Your task to perform on an android device: change text size in settings app Image 0: 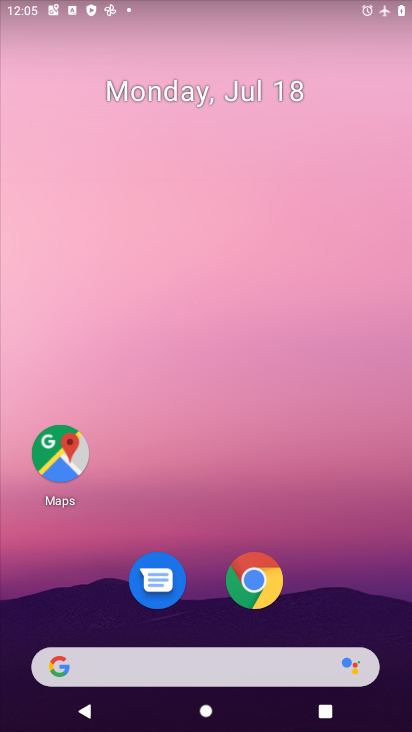
Step 0: drag from (200, 661) to (253, 231)
Your task to perform on an android device: change text size in settings app Image 1: 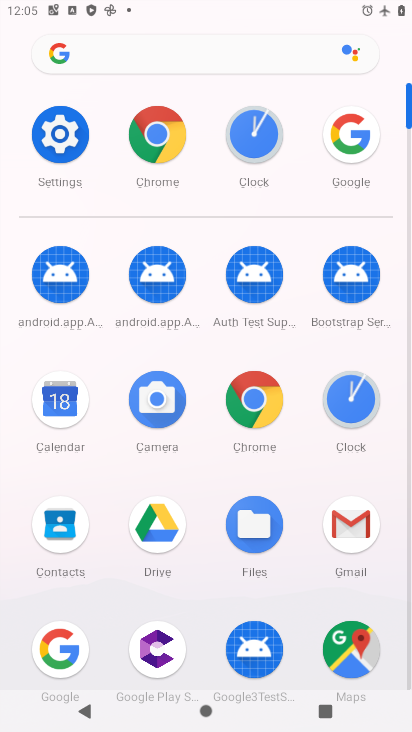
Step 1: click (56, 162)
Your task to perform on an android device: change text size in settings app Image 2: 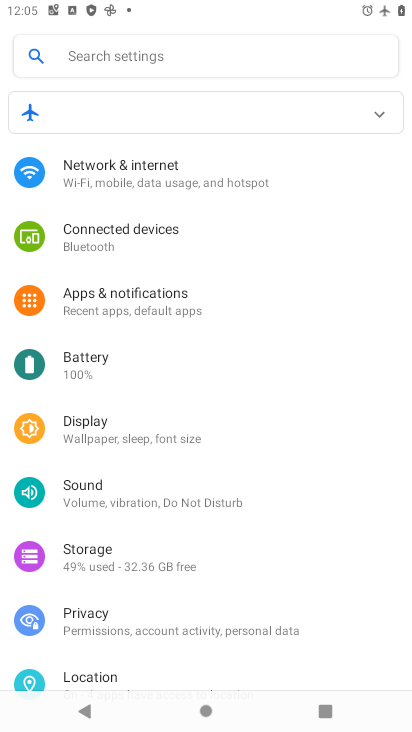
Step 2: click (98, 440)
Your task to perform on an android device: change text size in settings app Image 3: 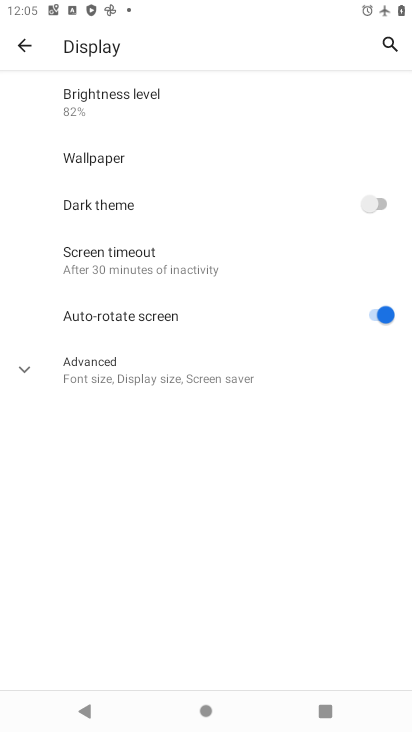
Step 3: click (136, 383)
Your task to perform on an android device: change text size in settings app Image 4: 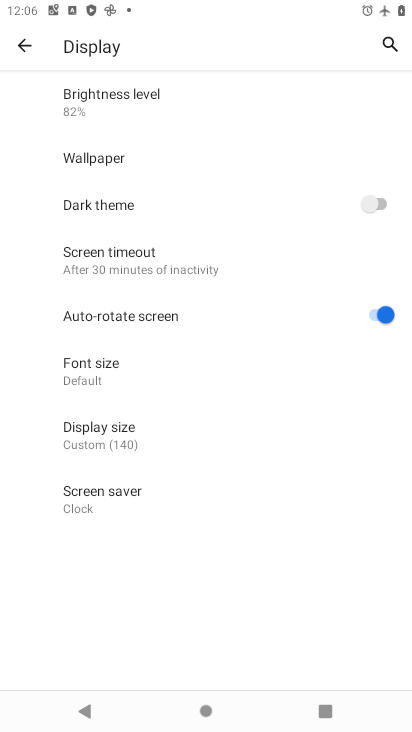
Step 4: click (97, 379)
Your task to perform on an android device: change text size in settings app Image 5: 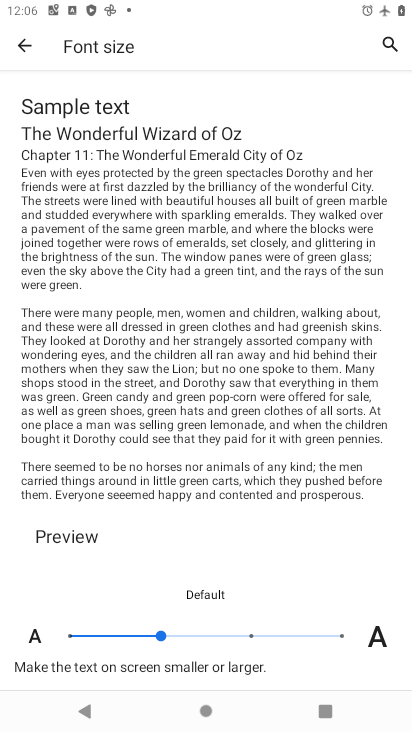
Step 5: click (252, 641)
Your task to perform on an android device: change text size in settings app Image 6: 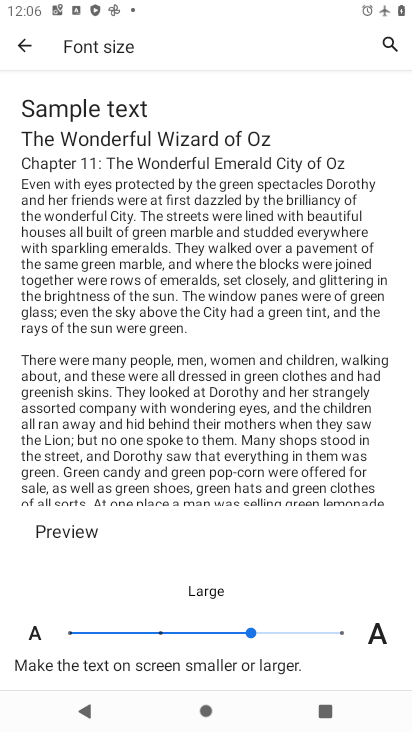
Step 6: task complete